Your task to perform on an android device: change text size in settings app Image 0: 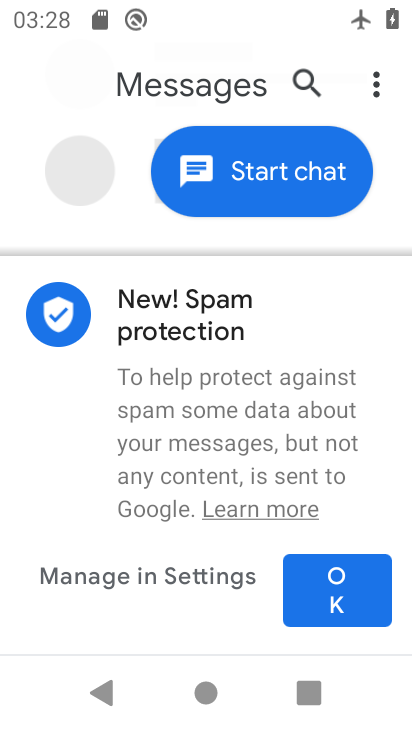
Step 0: press home button
Your task to perform on an android device: change text size in settings app Image 1: 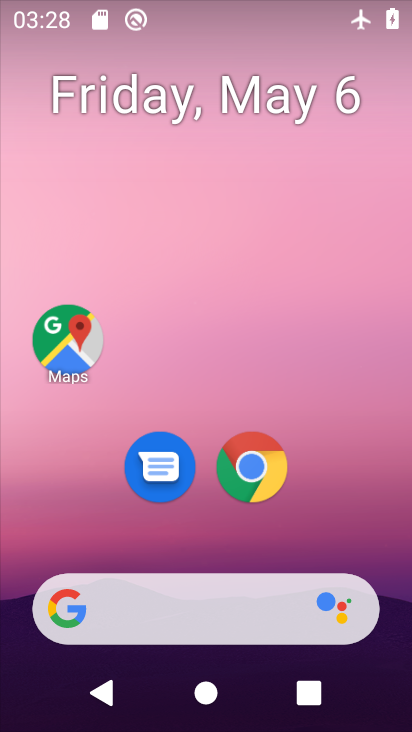
Step 1: click (373, 215)
Your task to perform on an android device: change text size in settings app Image 2: 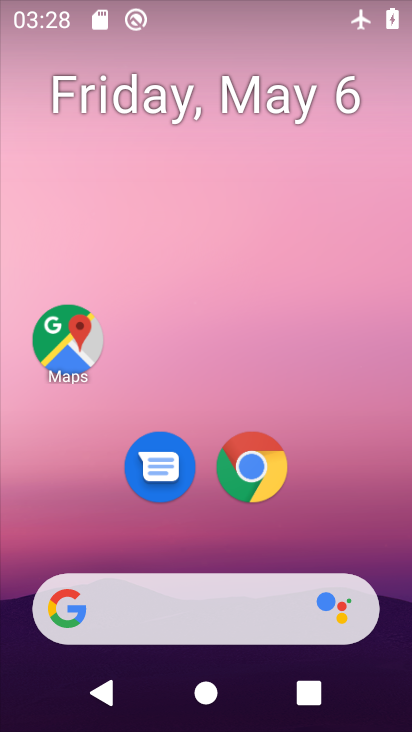
Step 2: drag from (394, 631) to (346, 165)
Your task to perform on an android device: change text size in settings app Image 3: 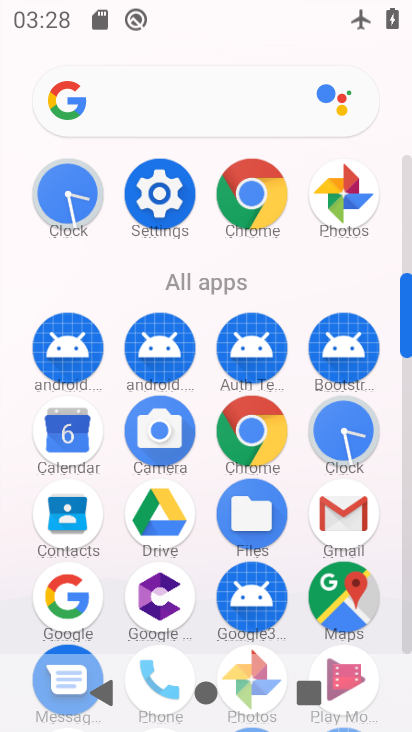
Step 3: click (164, 208)
Your task to perform on an android device: change text size in settings app Image 4: 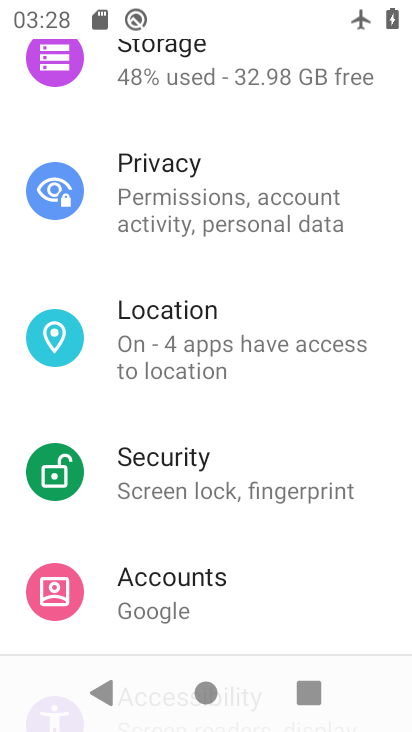
Step 4: drag from (378, 82) to (371, 464)
Your task to perform on an android device: change text size in settings app Image 5: 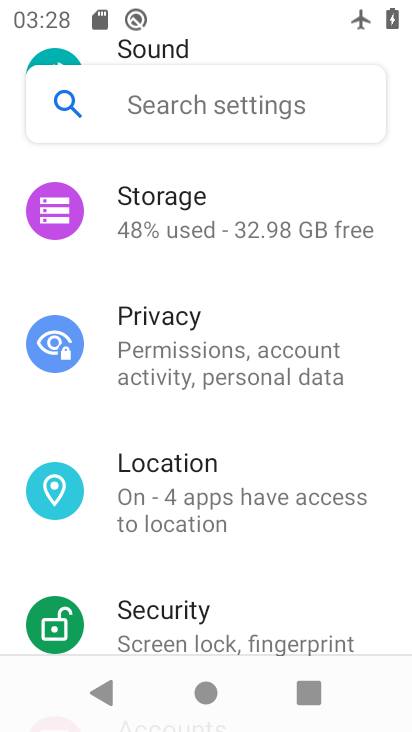
Step 5: drag from (372, 170) to (361, 619)
Your task to perform on an android device: change text size in settings app Image 6: 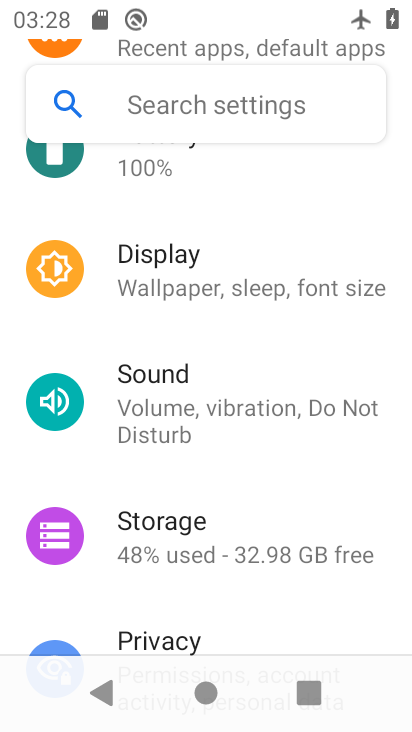
Step 6: drag from (367, 263) to (368, 502)
Your task to perform on an android device: change text size in settings app Image 7: 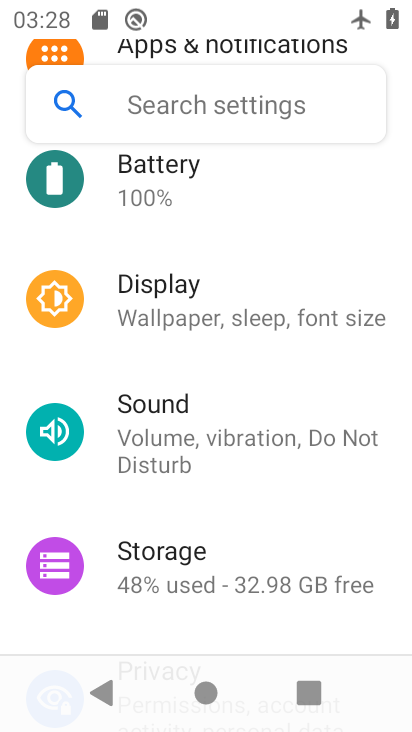
Step 7: drag from (353, 186) to (350, 546)
Your task to perform on an android device: change text size in settings app Image 8: 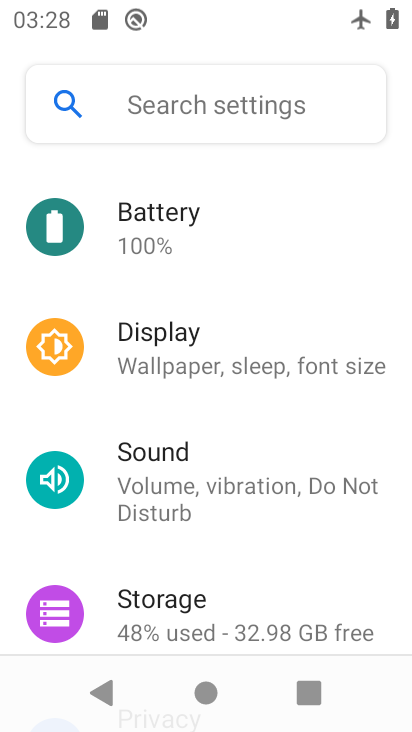
Step 8: drag from (317, 257) to (329, 547)
Your task to perform on an android device: change text size in settings app Image 9: 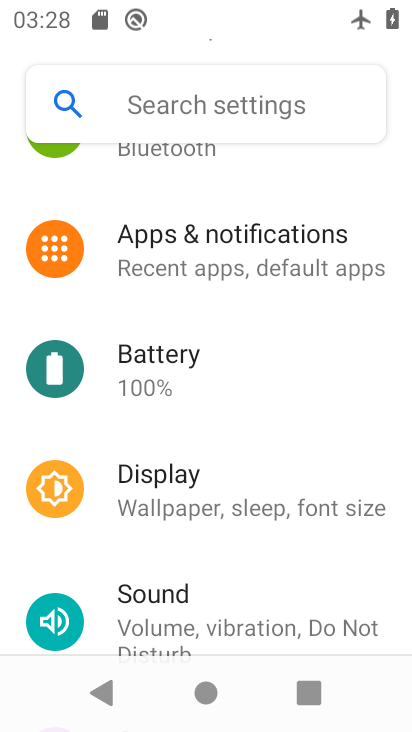
Step 9: drag from (356, 225) to (345, 643)
Your task to perform on an android device: change text size in settings app Image 10: 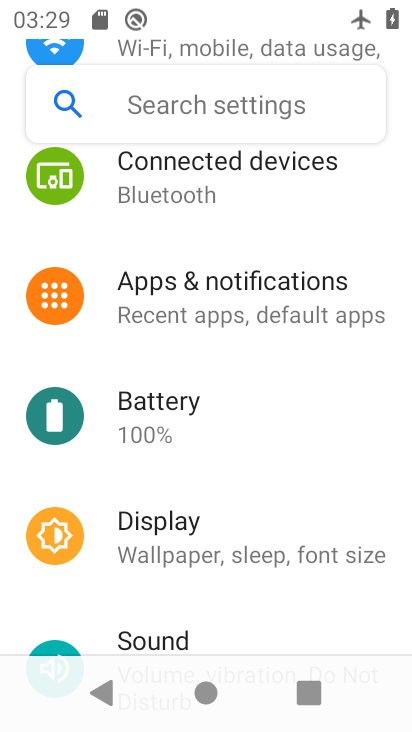
Step 10: drag from (310, 183) to (309, 505)
Your task to perform on an android device: change text size in settings app Image 11: 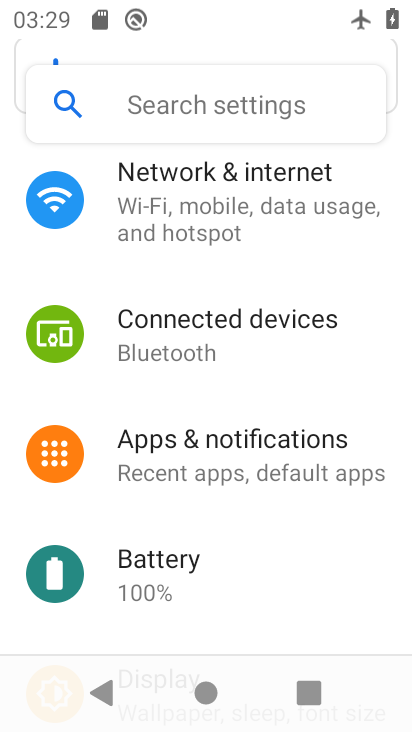
Step 11: click (231, 226)
Your task to perform on an android device: change text size in settings app Image 12: 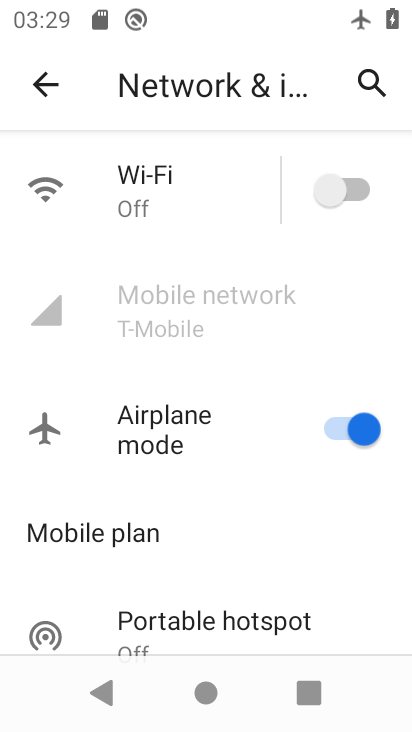
Step 12: click (350, 181)
Your task to perform on an android device: change text size in settings app Image 13: 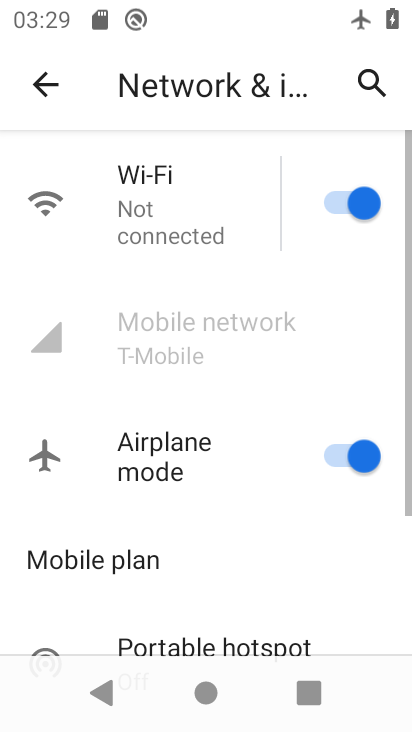
Step 13: click (331, 456)
Your task to perform on an android device: change text size in settings app Image 14: 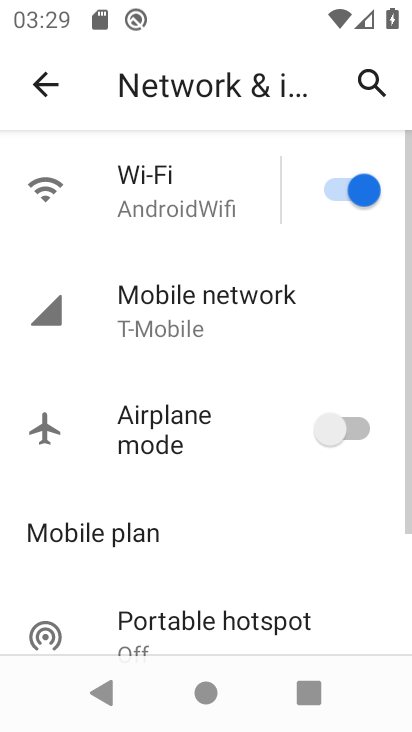
Step 14: click (42, 88)
Your task to perform on an android device: change text size in settings app Image 15: 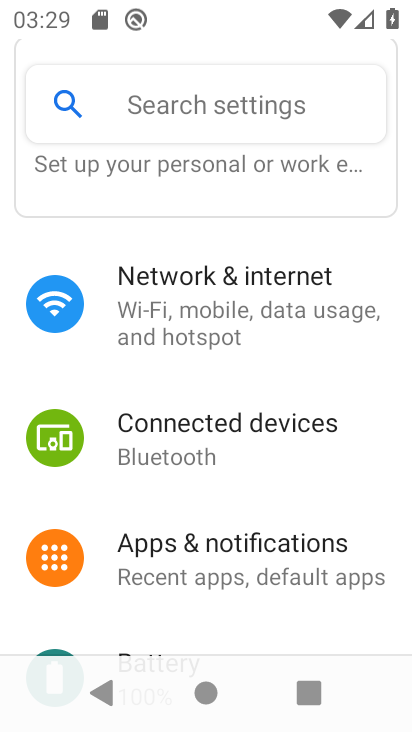
Step 15: drag from (267, 590) to (275, 274)
Your task to perform on an android device: change text size in settings app Image 16: 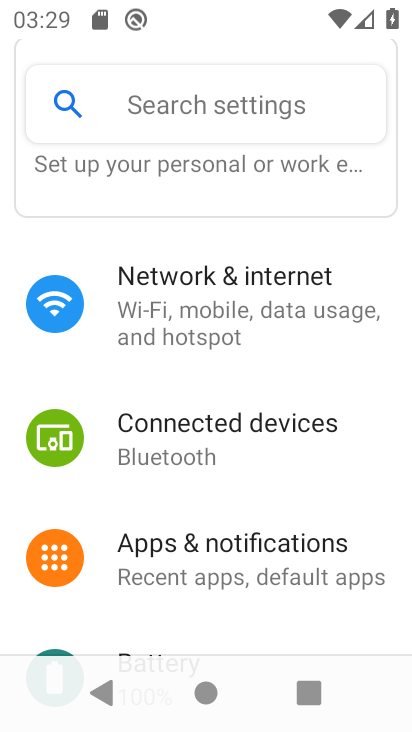
Step 16: drag from (269, 623) to (267, 406)
Your task to perform on an android device: change text size in settings app Image 17: 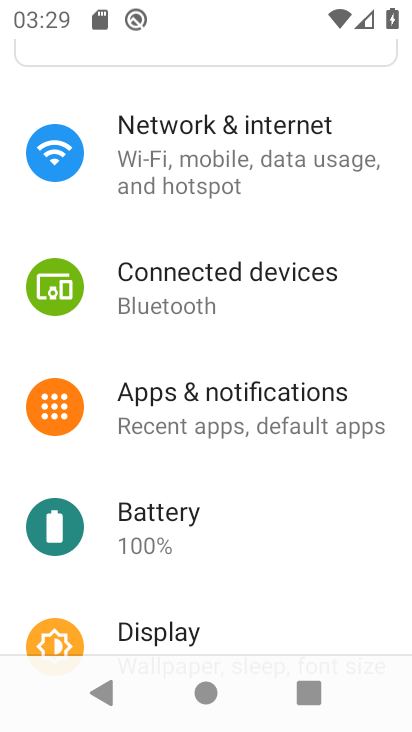
Step 17: drag from (301, 614) to (318, 289)
Your task to perform on an android device: change text size in settings app Image 18: 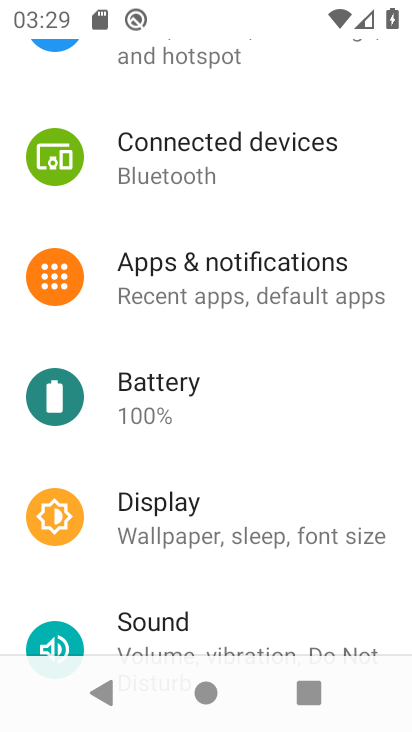
Step 18: click (183, 531)
Your task to perform on an android device: change text size in settings app Image 19: 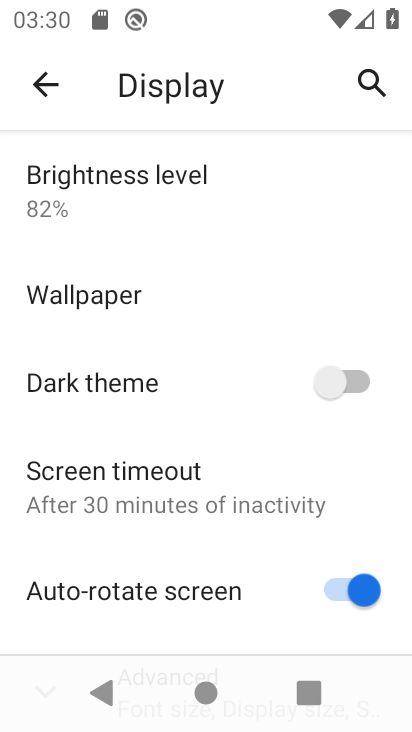
Step 19: drag from (213, 623) to (219, 255)
Your task to perform on an android device: change text size in settings app Image 20: 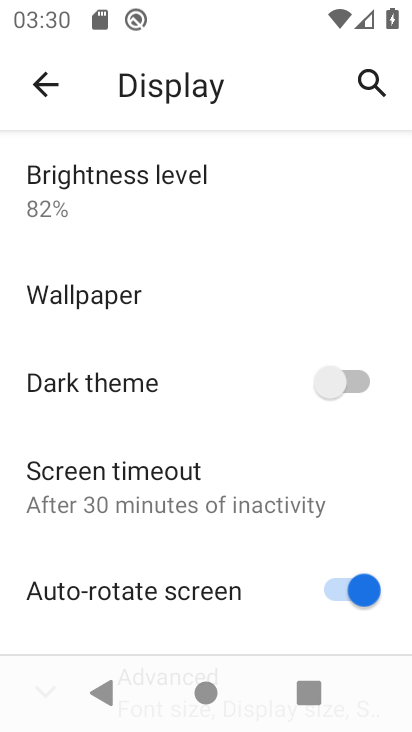
Step 20: drag from (256, 640) to (251, 306)
Your task to perform on an android device: change text size in settings app Image 21: 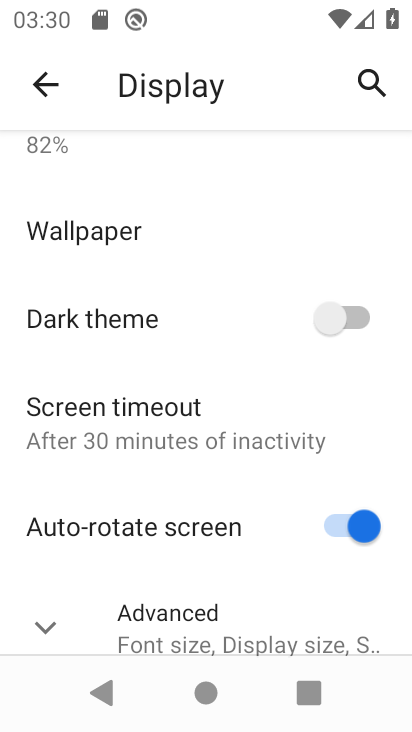
Step 21: drag from (256, 578) to (247, 193)
Your task to perform on an android device: change text size in settings app Image 22: 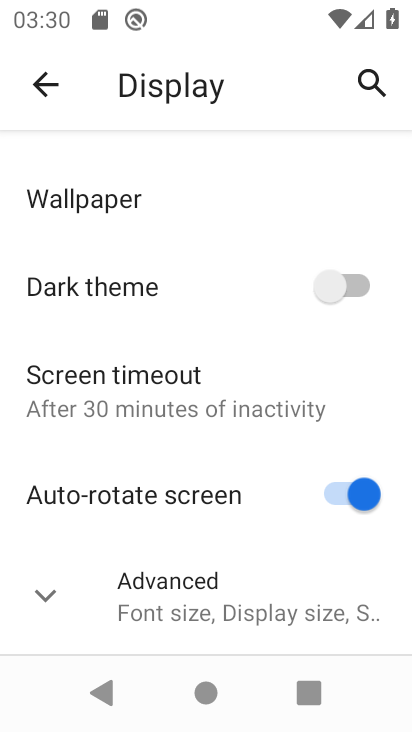
Step 22: drag from (262, 552) to (256, 278)
Your task to perform on an android device: change text size in settings app Image 23: 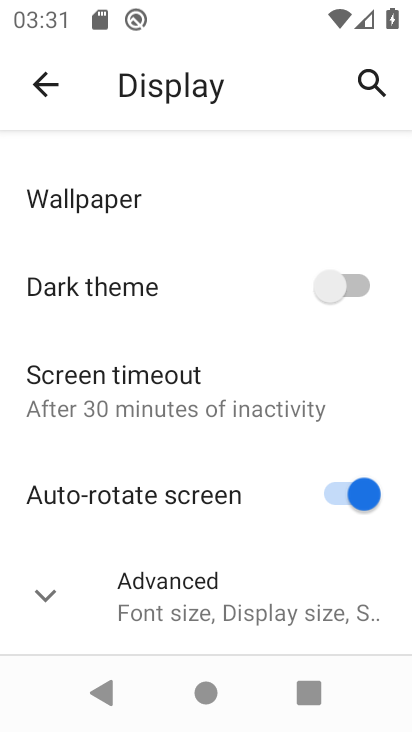
Step 23: drag from (253, 588) to (245, 348)
Your task to perform on an android device: change text size in settings app Image 24: 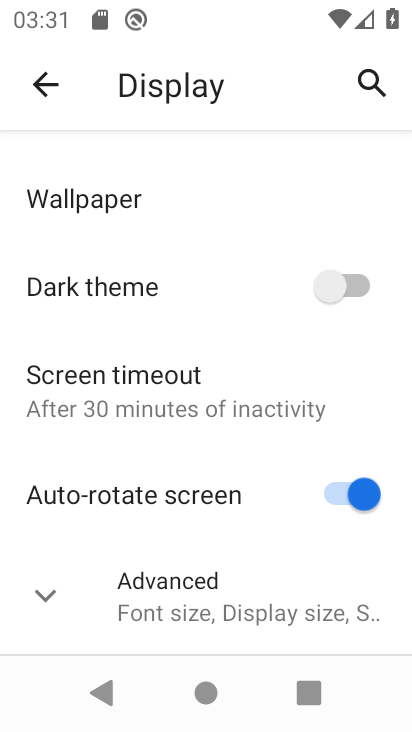
Step 24: click (128, 601)
Your task to perform on an android device: change text size in settings app Image 25: 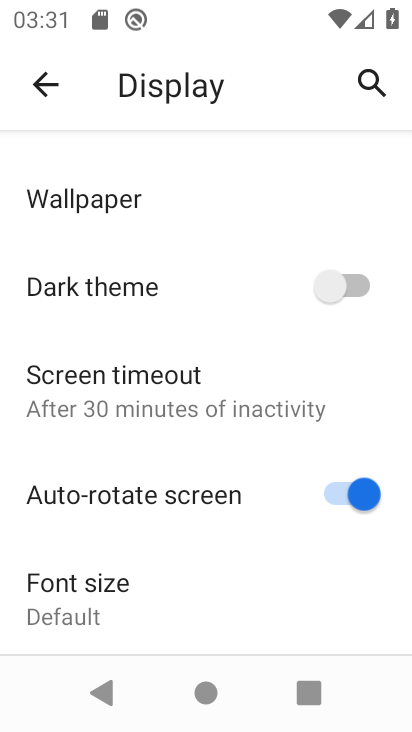
Step 25: drag from (215, 618) to (248, 309)
Your task to perform on an android device: change text size in settings app Image 26: 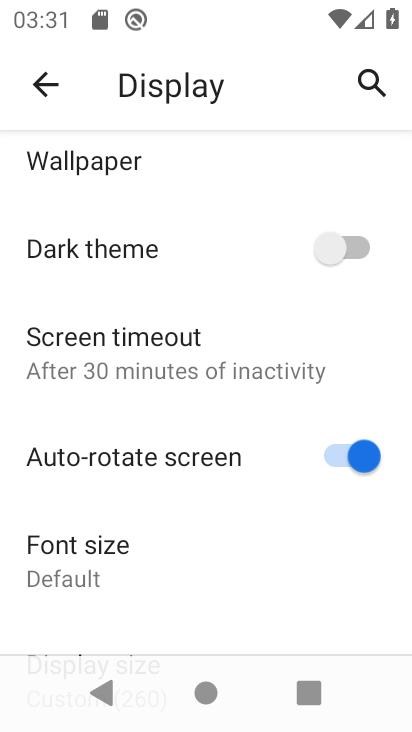
Step 26: click (87, 558)
Your task to perform on an android device: change text size in settings app Image 27: 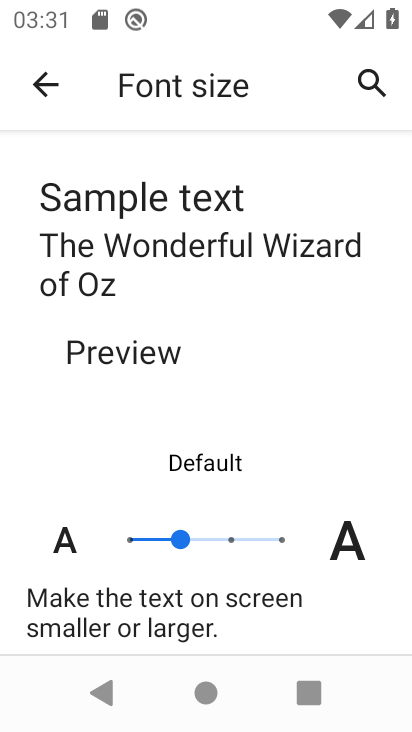
Step 27: click (212, 534)
Your task to perform on an android device: change text size in settings app Image 28: 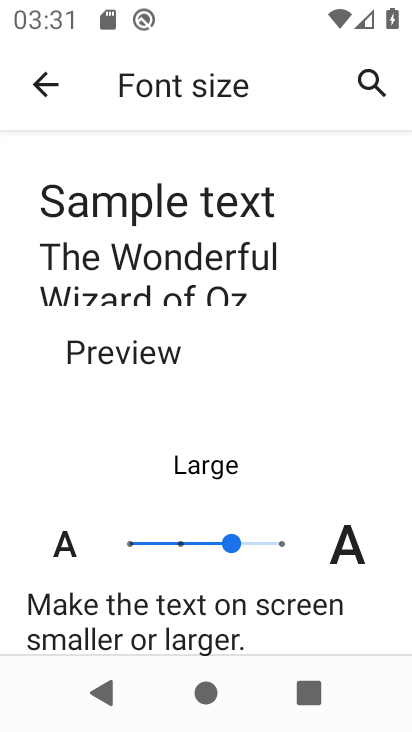
Step 28: task complete